Your task to perform on an android device: open device folders in google photos Image 0: 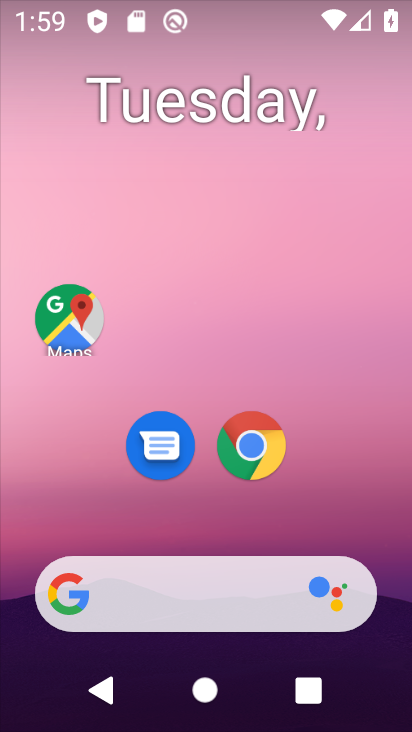
Step 0: drag from (212, 541) to (408, 310)
Your task to perform on an android device: open device folders in google photos Image 1: 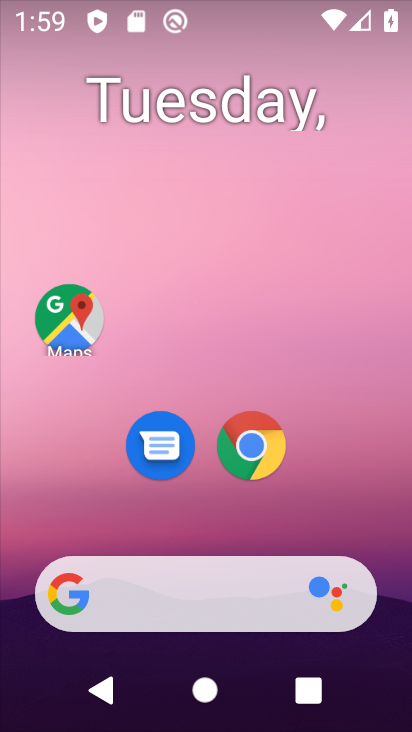
Step 1: drag from (208, 535) to (386, 226)
Your task to perform on an android device: open device folders in google photos Image 2: 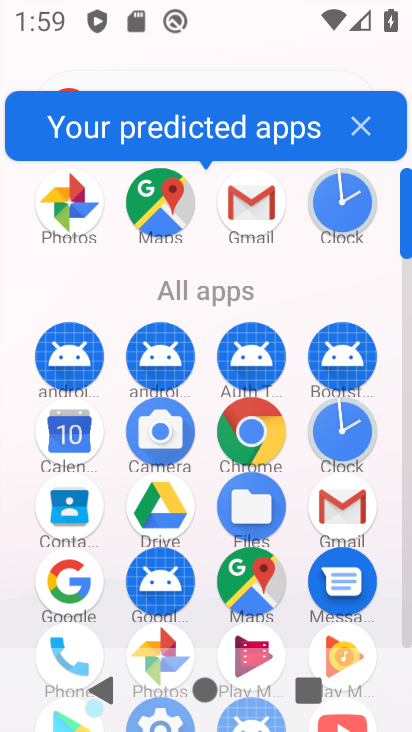
Step 2: click (59, 211)
Your task to perform on an android device: open device folders in google photos Image 3: 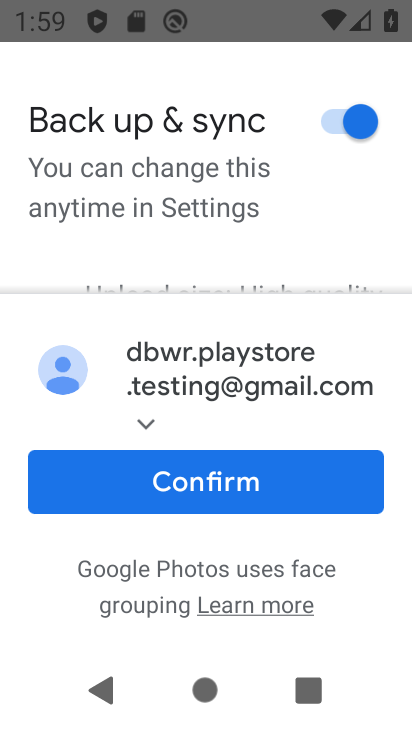
Step 3: click (157, 500)
Your task to perform on an android device: open device folders in google photos Image 4: 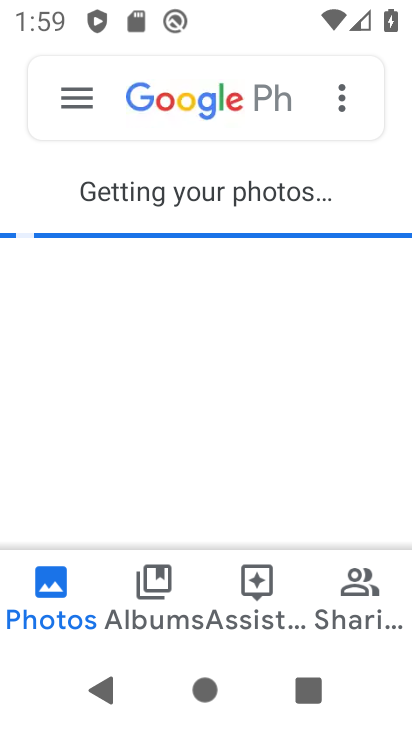
Step 4: drag from (197, 586) to (221, 229)
Your task to perform on an android device: open device folders in google photos Image 5: 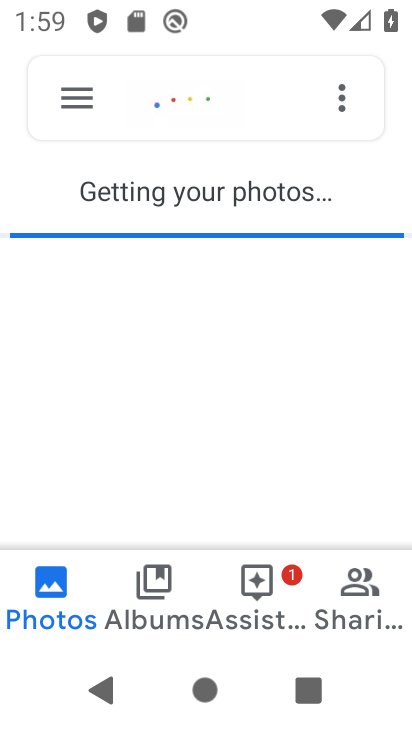
Step 5: click (82, 102)
Your task to perform on an android device: open device folders in google photos Image 6: 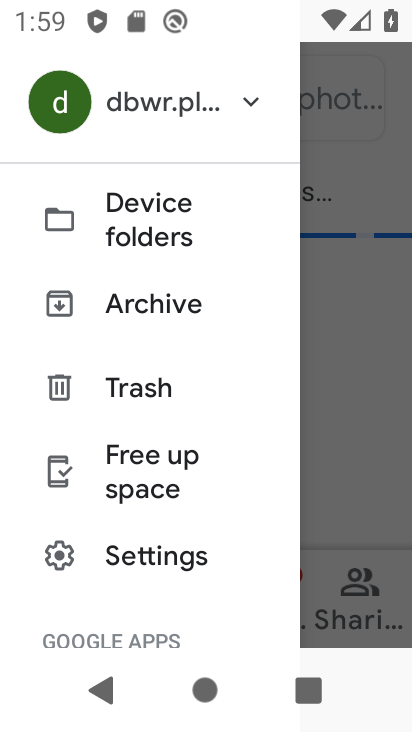
Step 6: click (148, 205)
Your task to perform on an android device: open device folders in google photos Image 7: 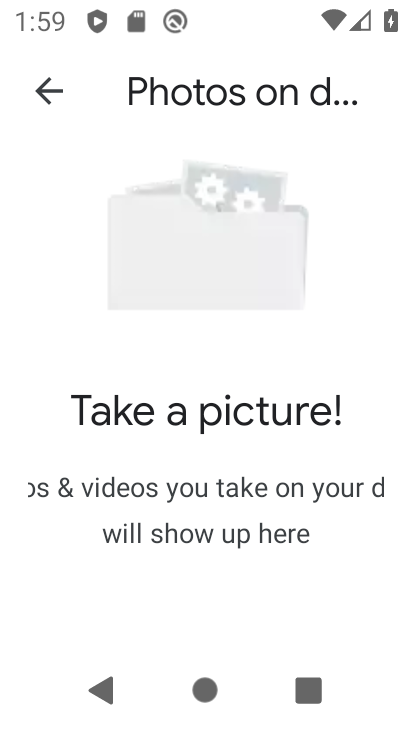
Step 7: task complete